Your task to perform on an android device: Open notification settings Image 0: 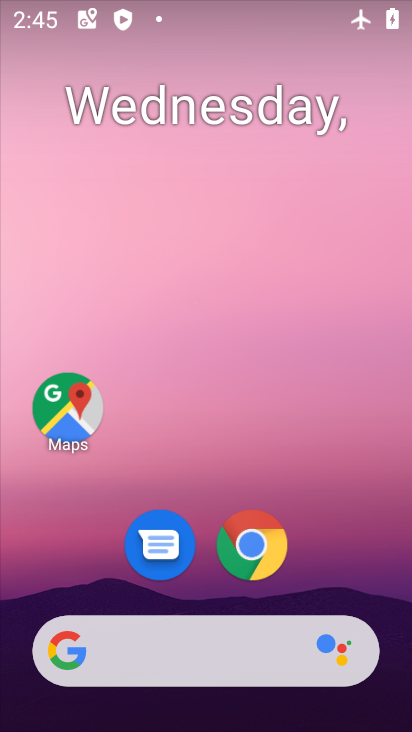
Step 0: drag from (319, 528) to (310, 168)
Your task to perform on an android device: Open notification settings Image 1: 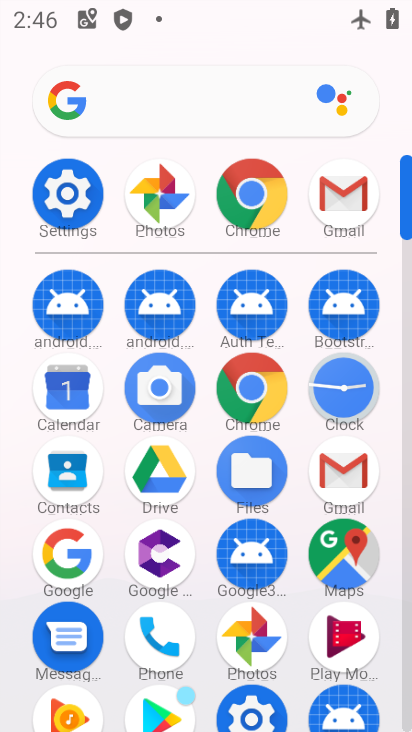
Step 1: click (63, 199)
Your task to perform on an android device: Open notification settings Image 2: 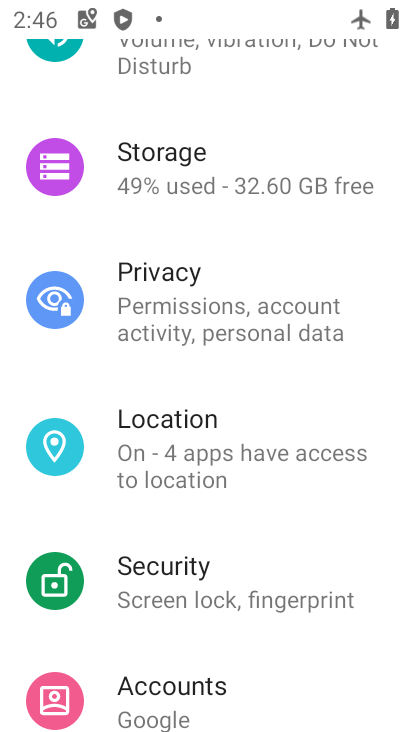
Step 2: drag from (241, 155) to (230, 643)
Your task to perform on an android device: Open notification settings Image 3: 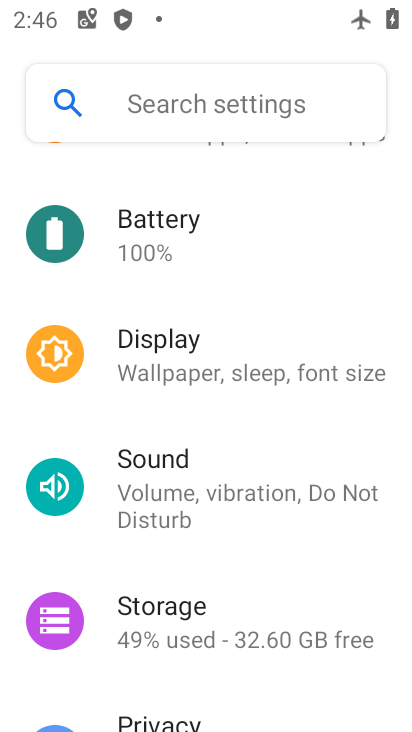
Step 3: drag from (255, 251) to (221, 579)
Your task to perform on an android device: Open notification settings Image 4: 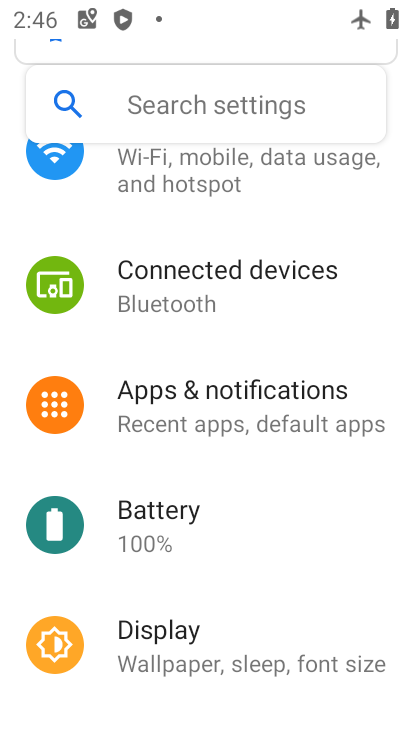
Step 4: click (241, 407)
Your task to perform on an android device: Open notification settings Image 5: 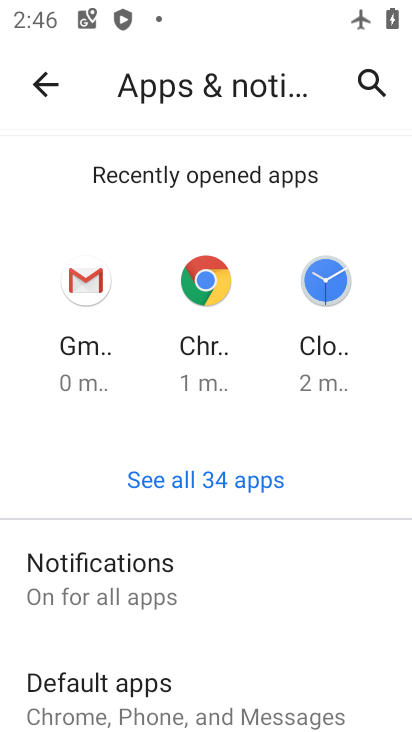
Step 5: click (147, 558)
Your task to perform on an android device: Open notification settings Image 6: 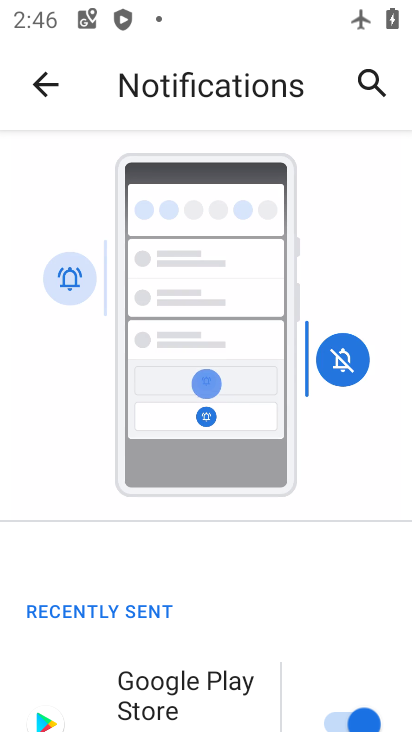
Step 6: task complete